Your task to perform on an android device: turn off translation in the chrome app Image 0: 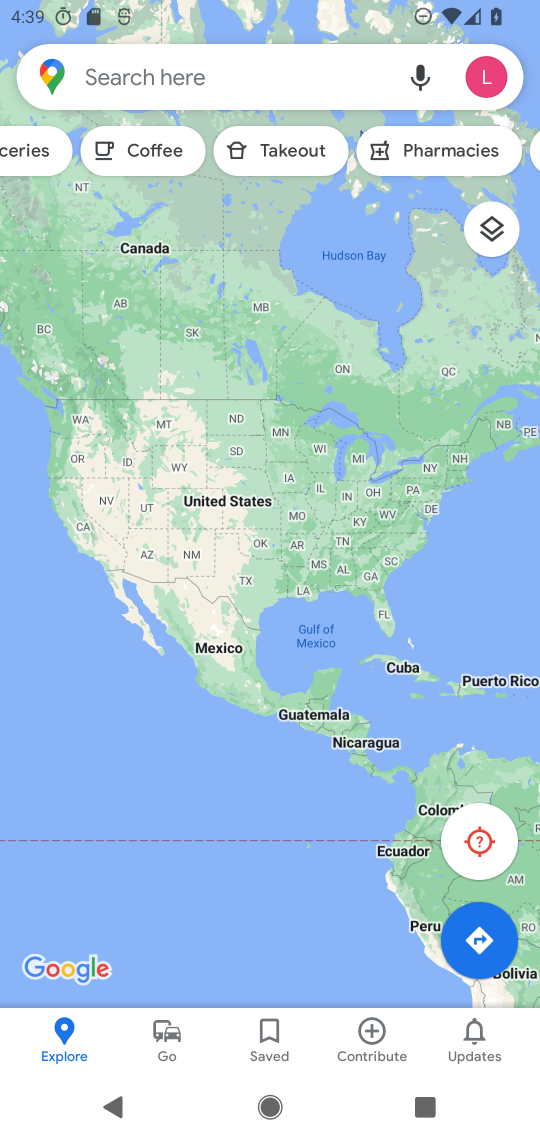
Step 0: press home button
Your task to perform on an android device: turn off translation in the chrome app Image 1: 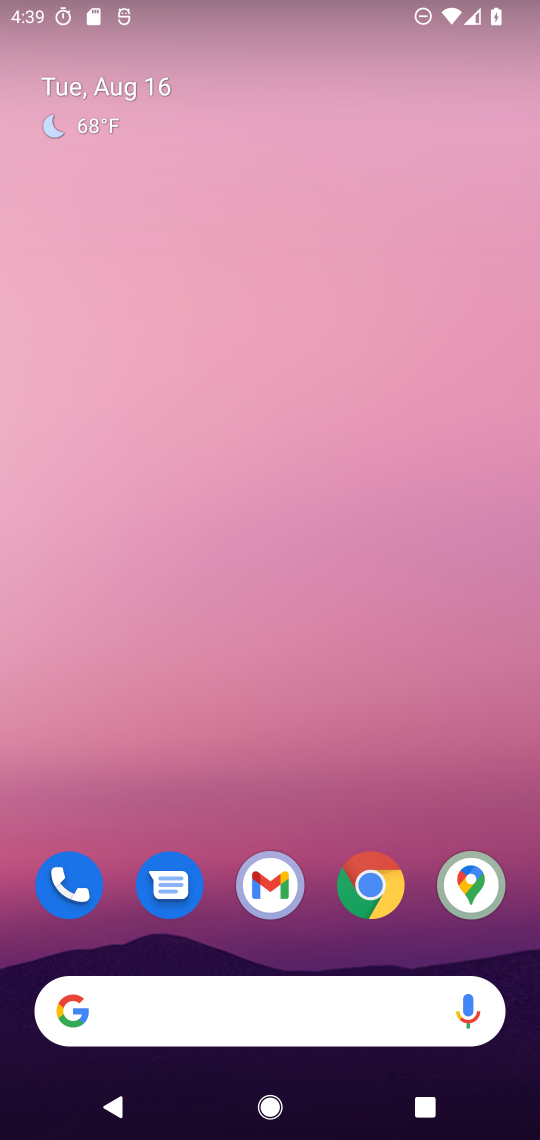
Step 1: drag from (289, 890) to (285, 133)
Your task to perform on an android device: turn off translation in the chrome app Image 2: 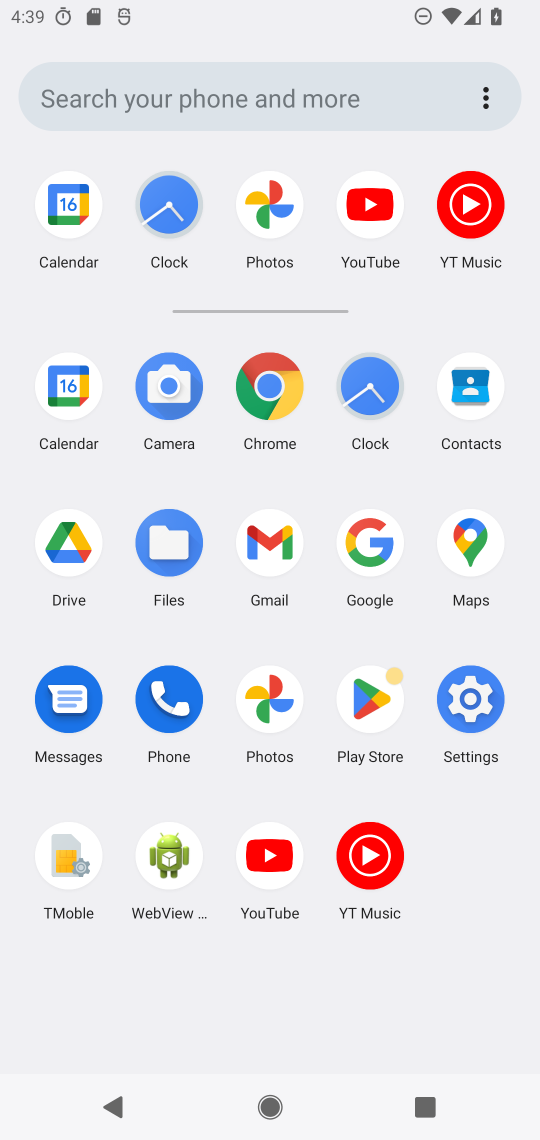
Step 2: click (266, 389)
Your task to perform on an android device: turn off translation in the chrome app Image 3: 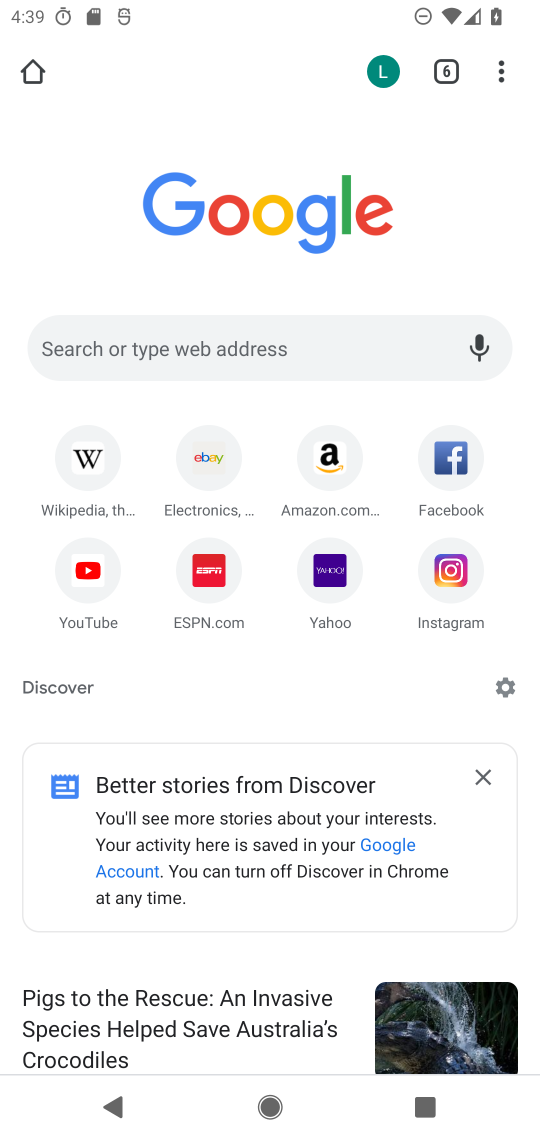
Step 3: click (504, 68)
Your task to perform on an android device: turn off translation in the chrome app Image 4: 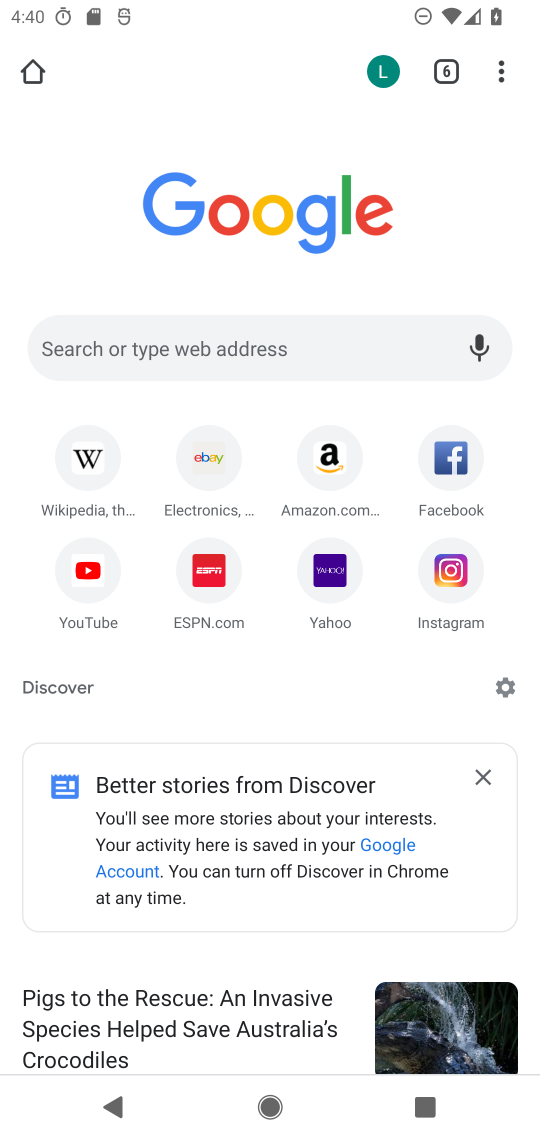
Step 4: click (495, 85)
Your task to perform on an android device: turn off translation in the chrome app Image 5: 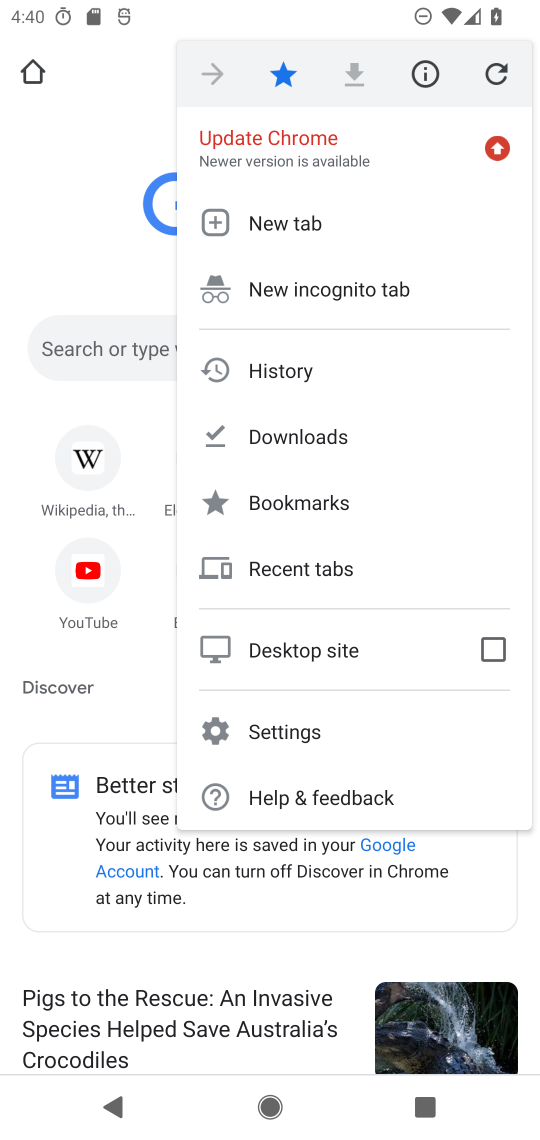
Step 5: click (296, 720)
Your task to perform on an android device: turn off translation in the chrome app Image 6: 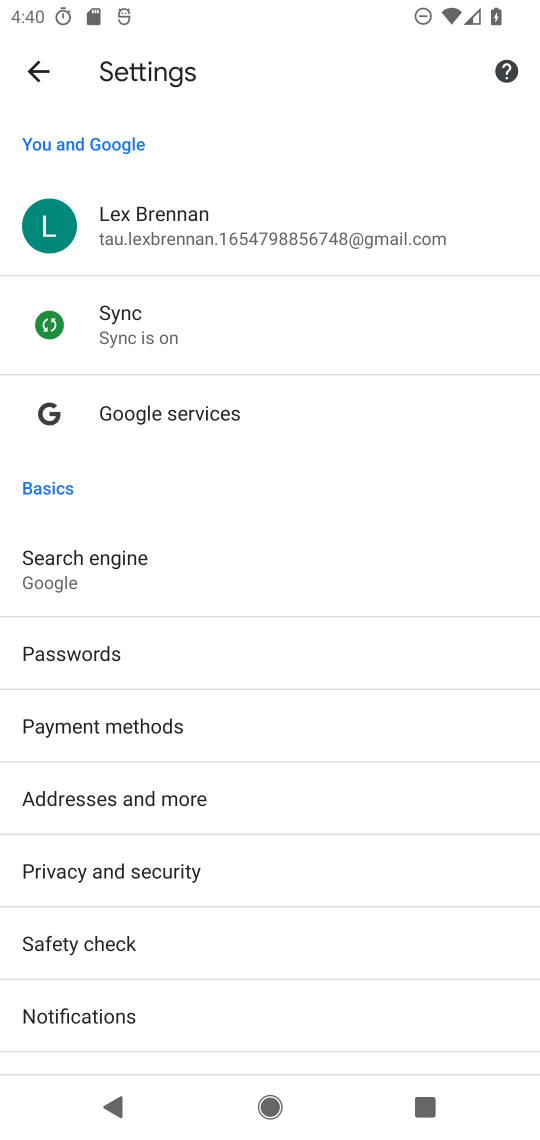
Step 6: drag from (229, 918) to (302, 235)
Your task to perform on an android device: turn off translation in the chrome app Image 7: 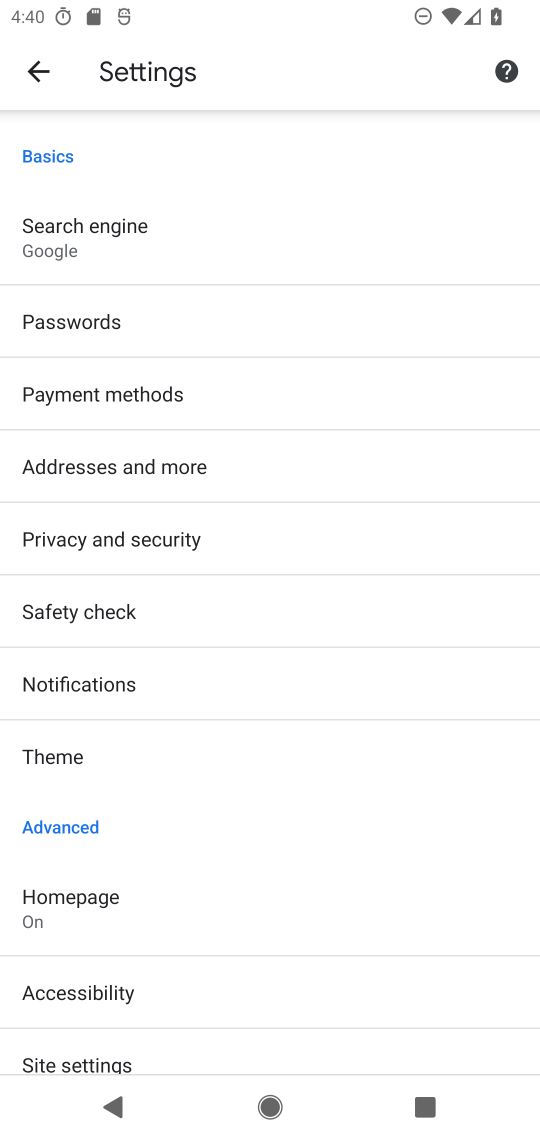
Step 7: drag from (153, 987) to (289, 314)
Your task to perform on an android device: turn off translation in the chrome app Image 8: 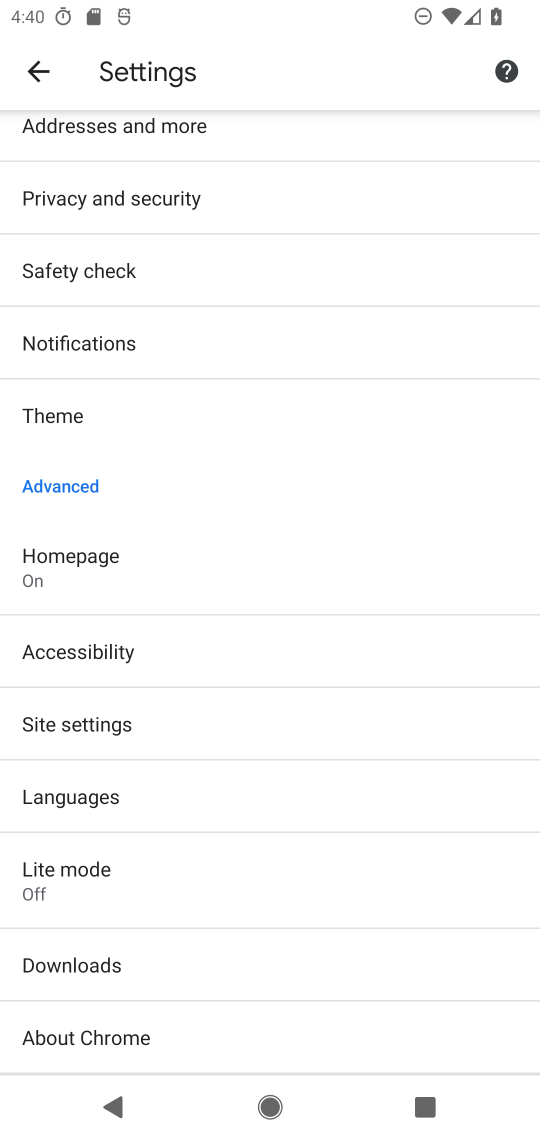
Step 8: click (151, 790)
Your task to perform on an android device: turn off translation in the chrome app Image 9: 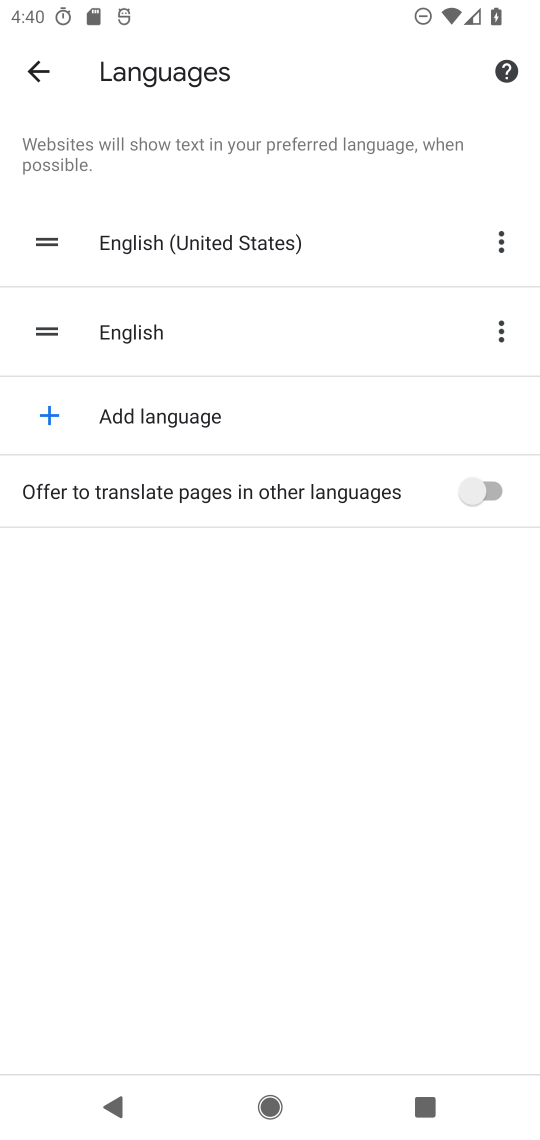
Step 9: click (477, 494)
Your task to perform on an android device: turn off translation in the chrome app Image 10: 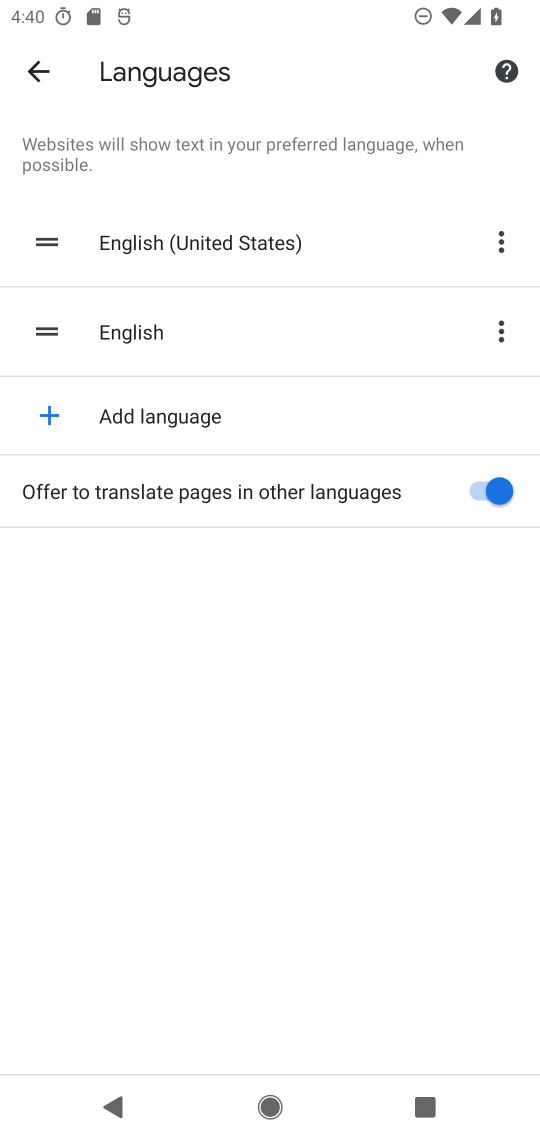
Step 10: click (473, 502)
Your task to perform on an android device: turn off translation in the chrome app Image 11: 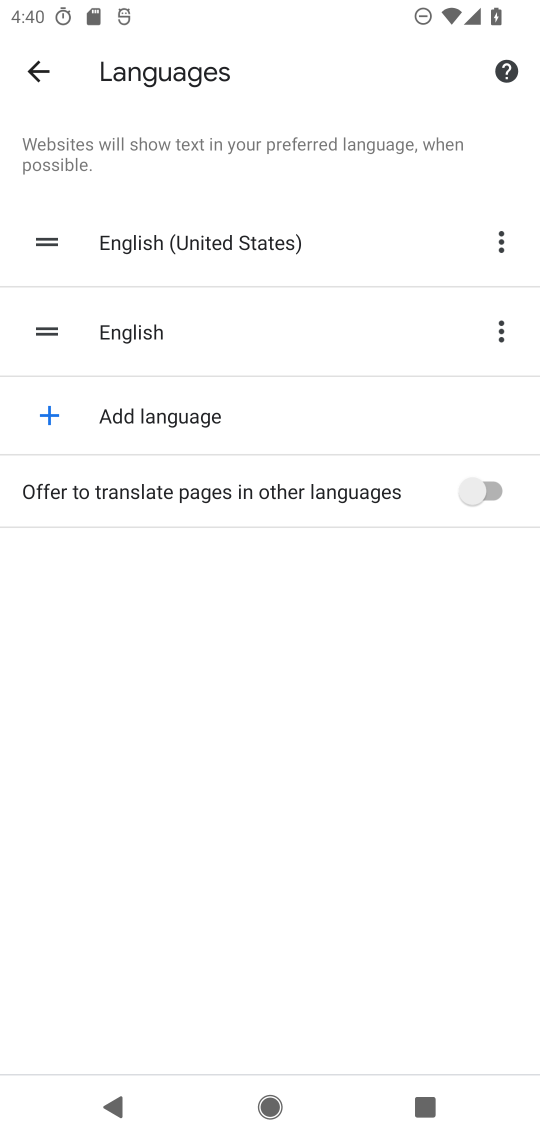
Step 11: task complete